Your task to perform on an android device: find which apps use the phone's location Image 0: 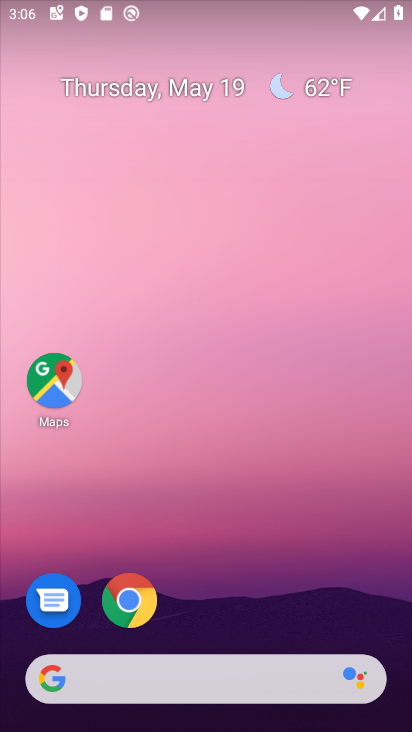
Step 0: press home button
Your task to perform on an android device: find which apps use the phone's location Image 1: 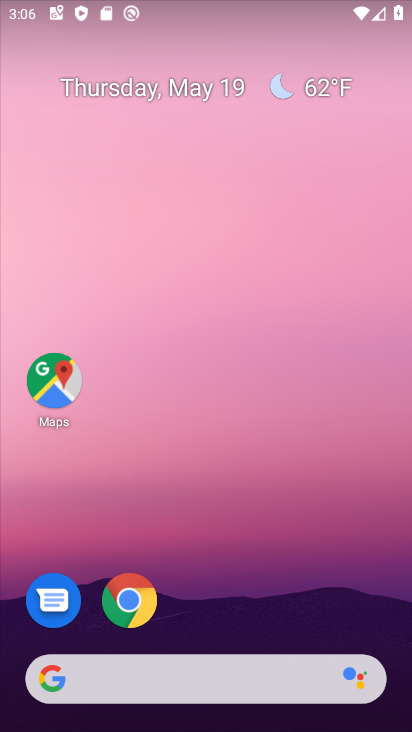
Step 1: drag from (32, 504) to (229, 148)
Your task to perform on an android device: find which apps use the phone's location Image 2: 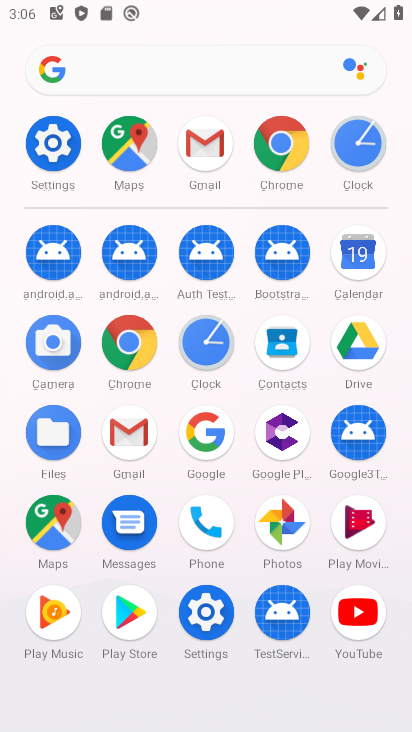
Step 2: click (52, 139)
Your task to perform on an android device: find which apps use the phone's location Image 3: 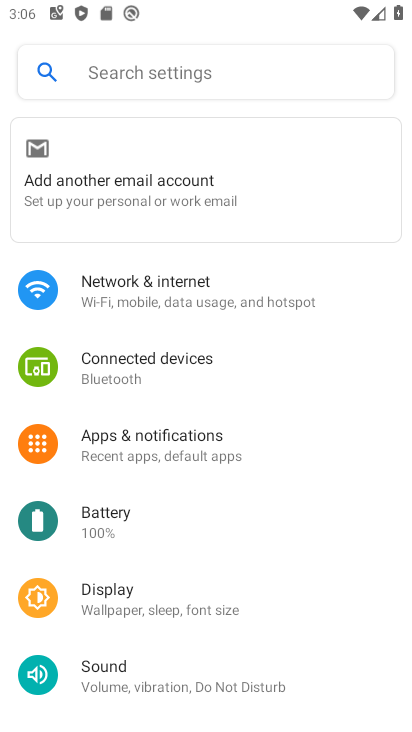
Step 3: drag from (35, 615) to (164, 376)
Your task to perform on an android device: find which apps use the phone's location Image 4: 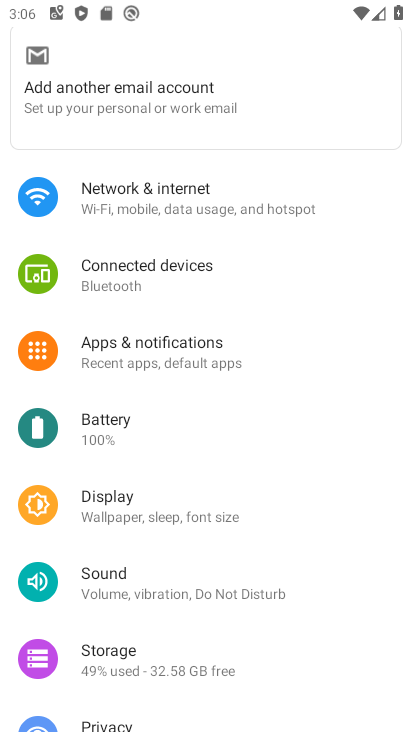
Step 4: drag from (32, 492) to (139, 296)
Your task to perform on an android device: find which apps use the phone's location Image 5: 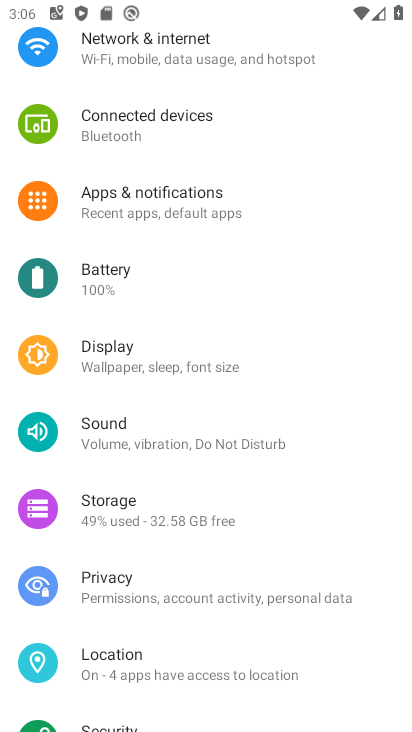
Step 5: click (140, 678)
Your task to perform on an android device: find which apps use the phone's location Image 6: 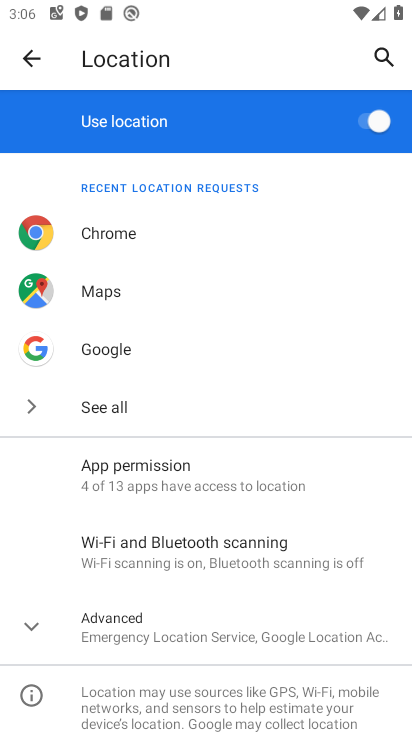
Step 6: click (150, 470)
Your task to perform on an android device: find which apps use the phone's location Image 7: 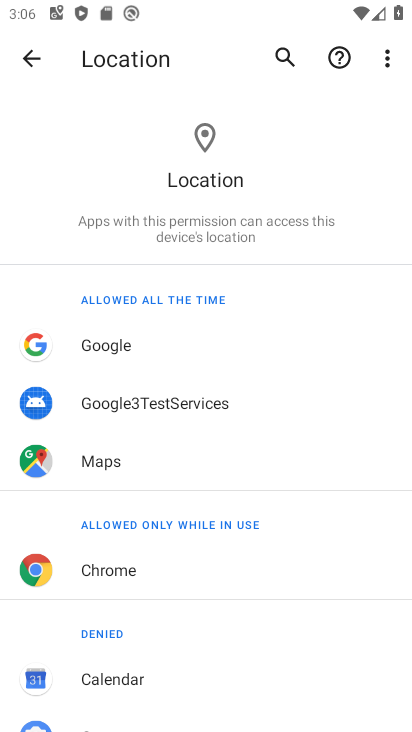
Step 7: task complete